Your task to perform on an android device: change your default location settings in chrome Image 0: 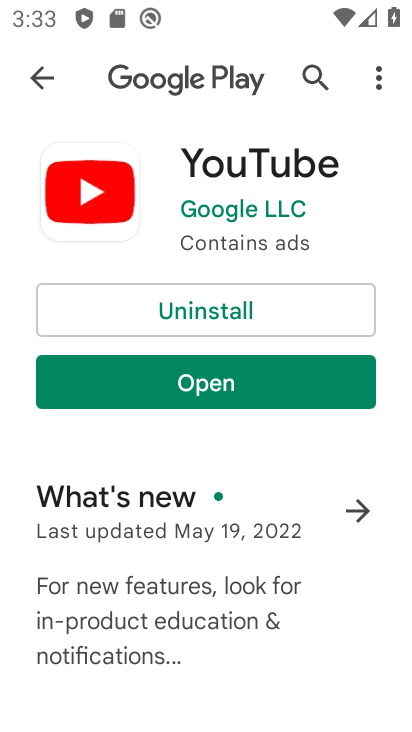
Step 0: drag from (345, 580) to (354, 164)
Your task to perform on an android device: change your default location settings in chrome Image 1: 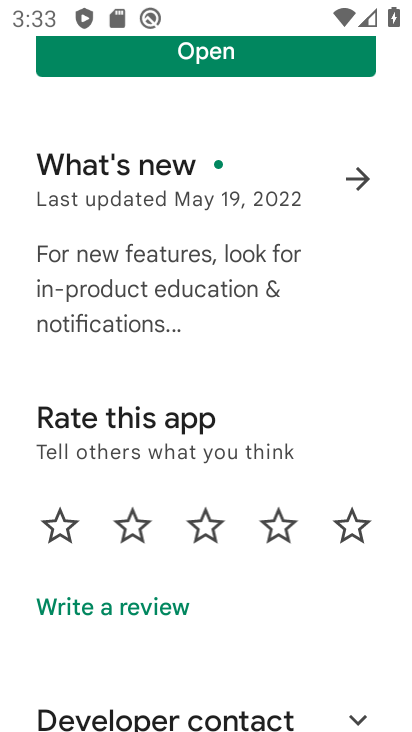
Step 1: press home button
Your task to perform on an android device: change your default location settings in chrome Image 2: 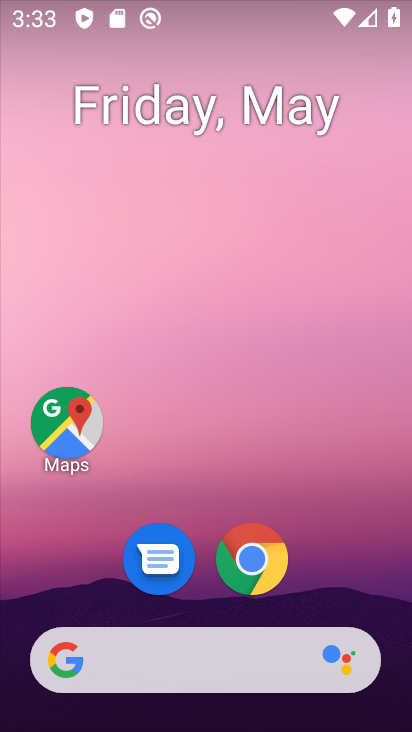
Step 2: click (267, 581)
Your task to perform on an android device: change your default location settings in chrome Image 3: 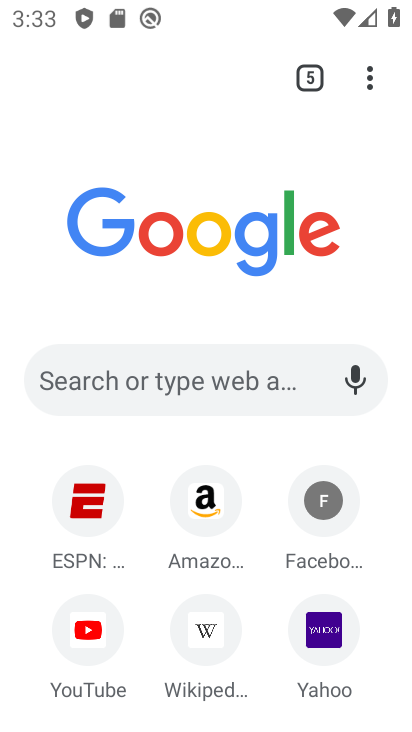
Step 3: click (370, 88)
Your task to perform on an android device: change your default location settings in chrome Image 4: 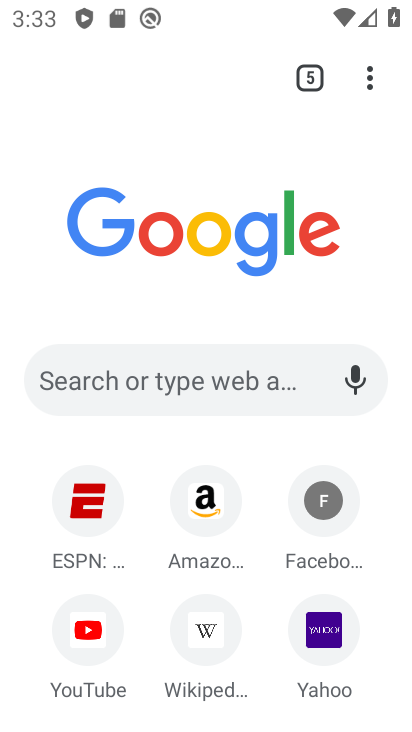
Step 4: click (371, 59)
Your task to perform on an android device: change your default location settings in chrome Image 5: 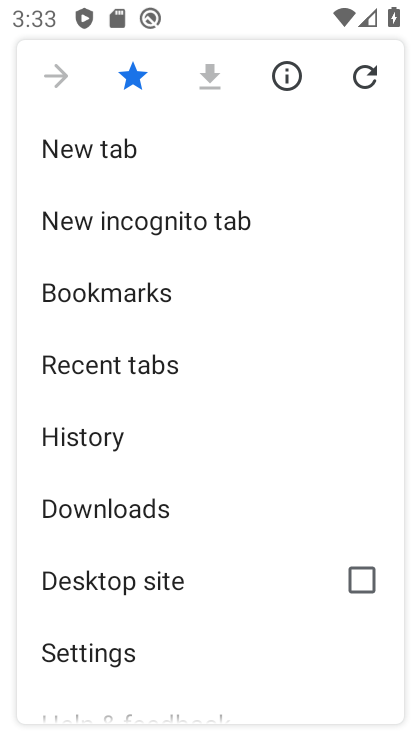
Step 5: drag from (206, 601) to (205, 184)
Your task to perform on an android device: change your default location settings in chrome Image 6: 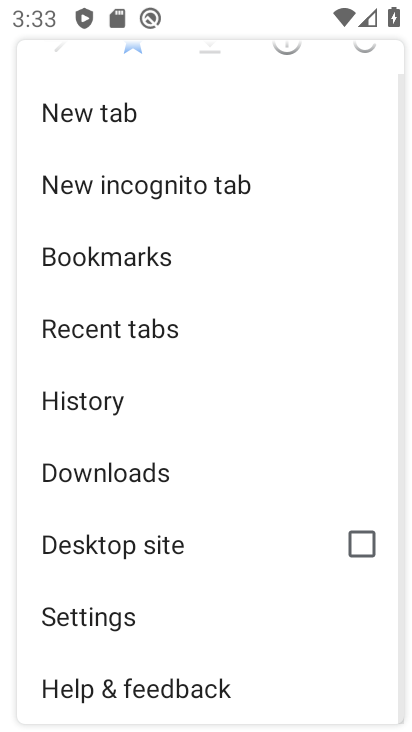
Step 6: click (122, 635)
Your task to perform on an android device: change your default location settings in chrome Image 7: 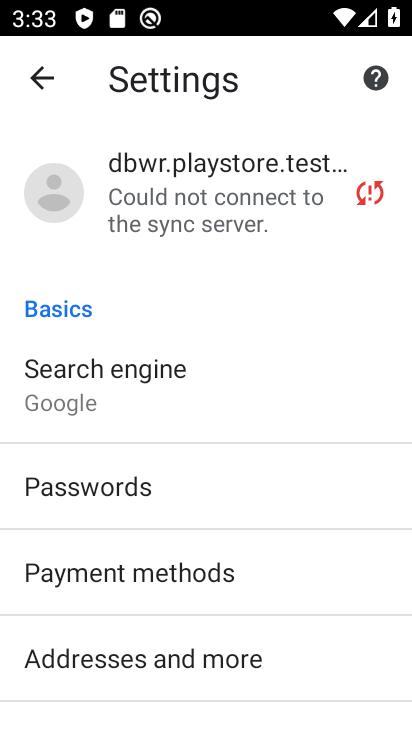
Step 7: drag from (159, 599) to (155, 133)
Your task to perform on an android device: change your default location settings in chrome Image 8: 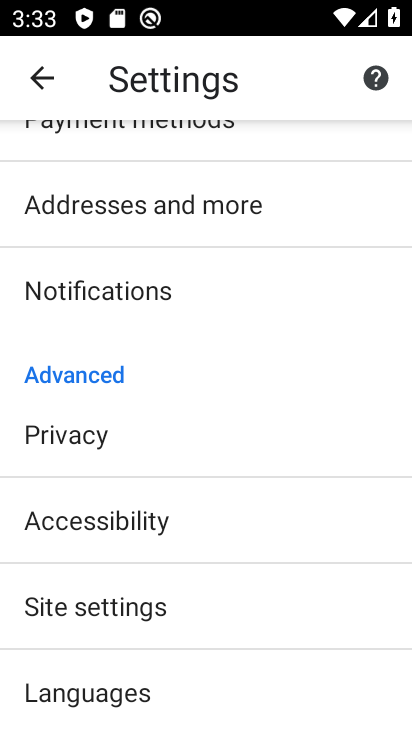
Step 8: click (138, 597)
Your task to perform on an android device: change your default location settings in chrome Image 9: 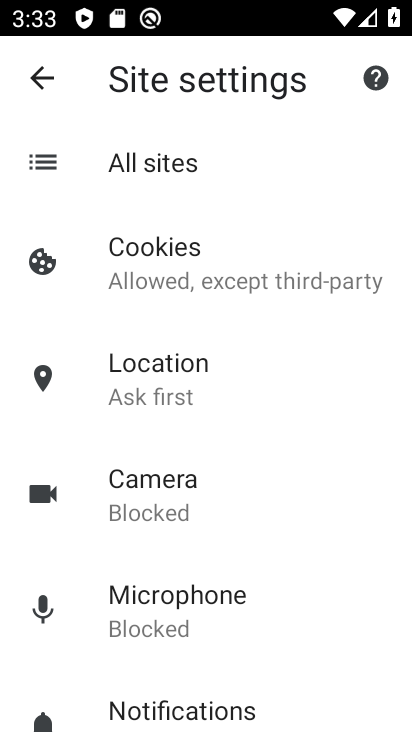
Step 9: click (146, 410)
Your task to perform on an android device: change your default location settings in chrome Image 10: 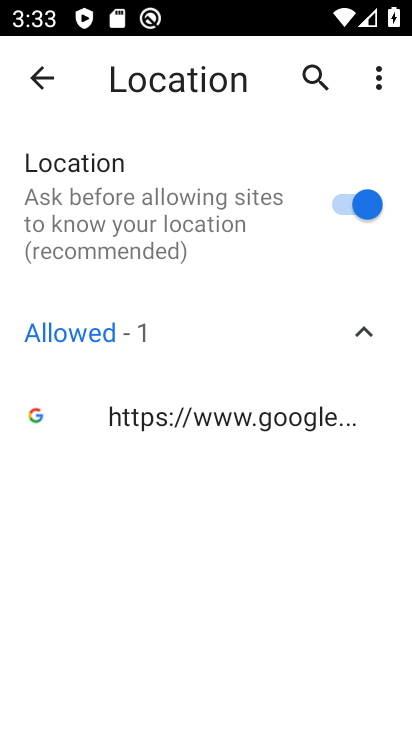
Step 10: click (358, 201)
Your task to perform on an android device: change your default location settings in chrome Image 11: 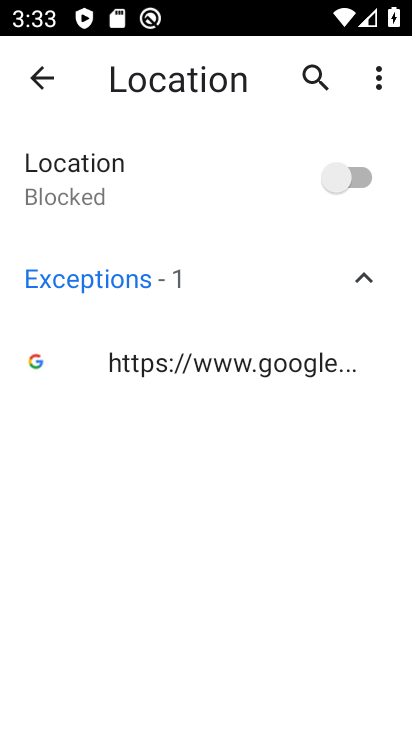
Step 11: task complete